Your task to perform on an android device: make emails show in primary in the gmail app Image 0: 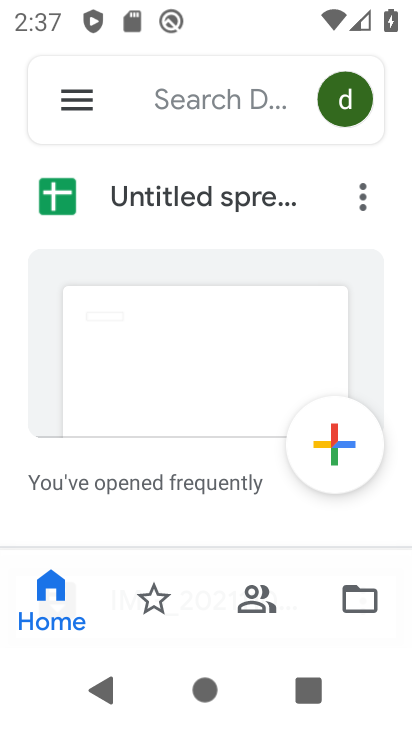
Step 0: press home button
Your task to perform on an android device: make emails show in primary in the gmail app Image 1: 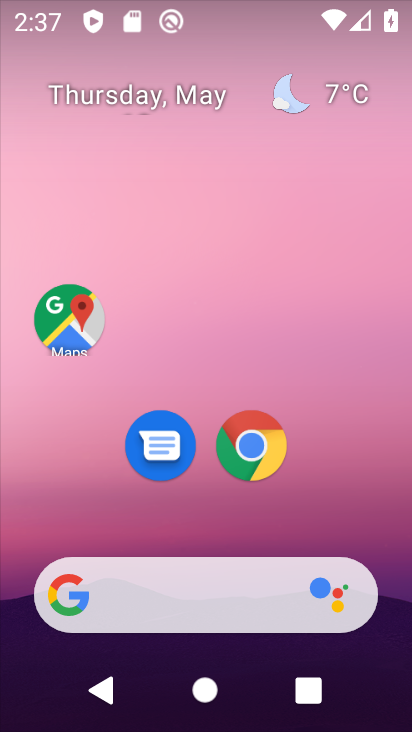
Step 1: drag from (348, 520) to (391, 12)
Your task to perform on an android device: make emails show in primary in the gmail app Image 2: 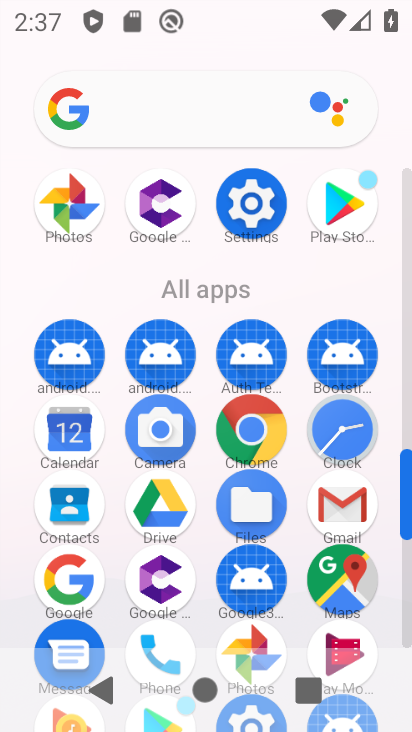
Step 2: click (342, 509)
Your task to perform on an android device: make emails show in primary in the gmail app Image 3: 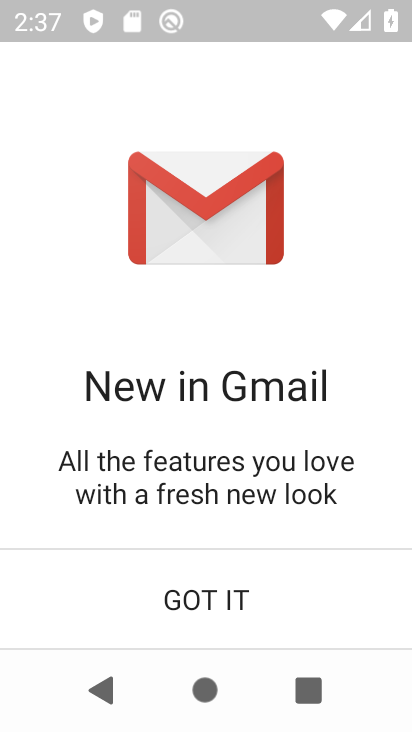
Step 3: click (206, 601)
Your task to perform on an android device: make emails show in primary in the gmail app Image 4: 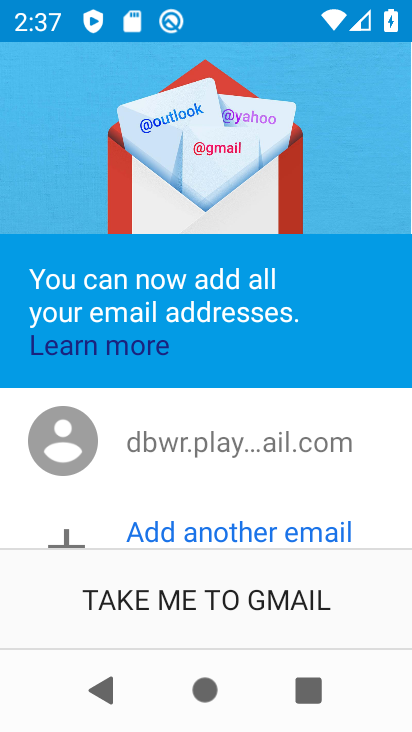
Step 4: click (206, 601)
Your task to perform on an android device: make emails show in primary in the gmail app Image 5: 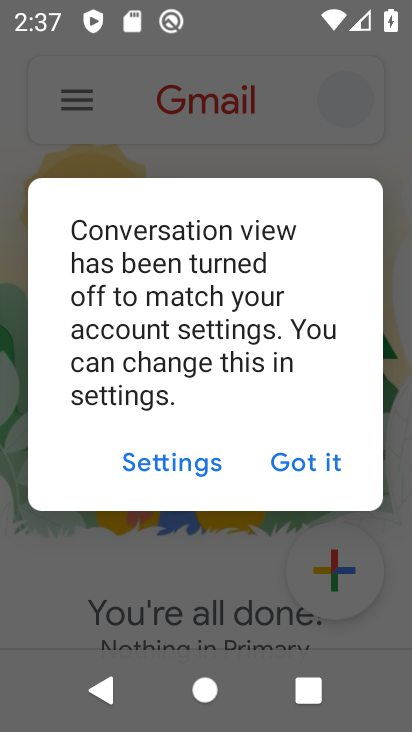
Step 5: click (295, 477)
Your task to perform on an android device: make emails show in primary in the gmail app Image 6: 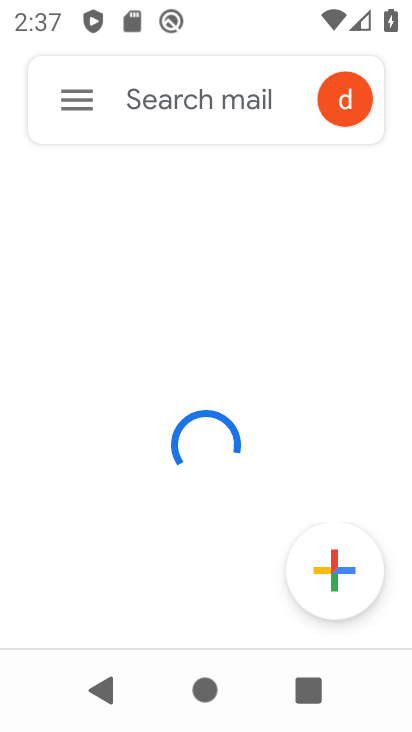
Step 6: click (81, 107)
Your task to perform on an android device: make emails show in primary in the gmail app Image 7: 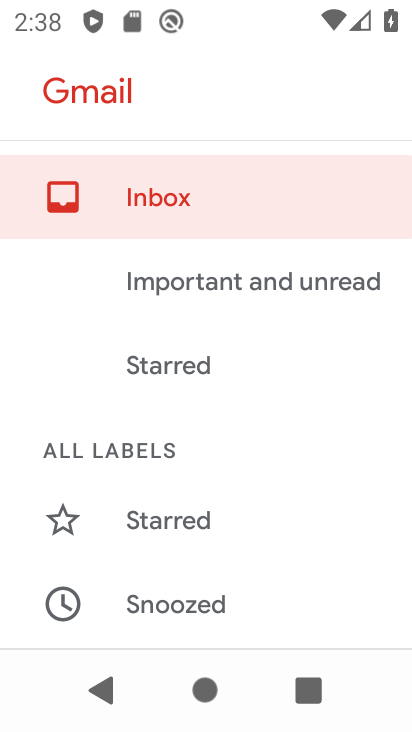
Step 7: drag from (258, 503) to (266, 104)
Your task to perform on an android device: make emails show in primary in the gmail app Image 8: 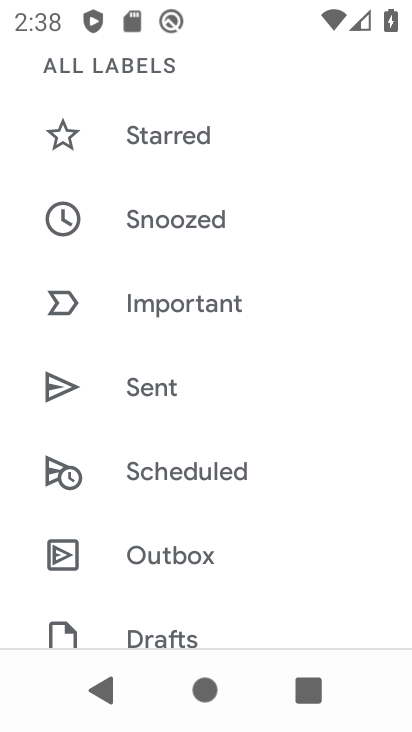
Step 8: drag from (293, 495) to (255, 114)
Your task to perform on an android device: make emails show in primary in the gmail app Image 9: 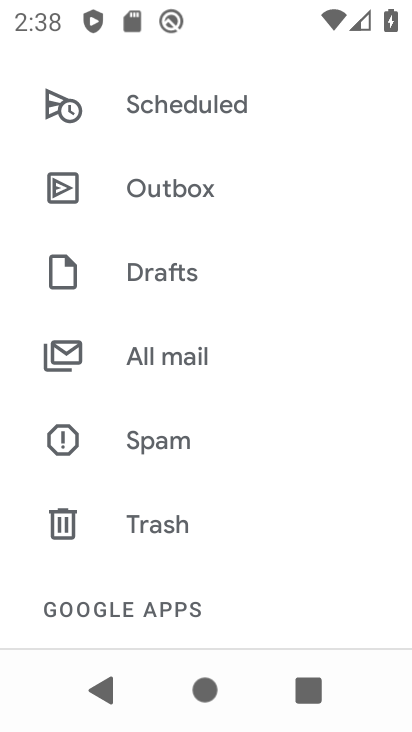
Step 9: drag from (243, 521) to (262, 155)
Your task to perform on an android device: make emails show in primary in the gmail app Image 10: 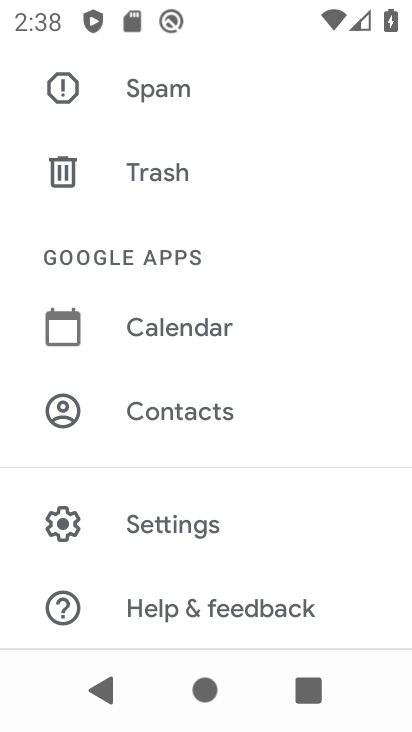
Step 10: drag from (277, 516) to (280, 189)
Your task to perform on an android device: make emails show in primary in the gmail app Image 11: 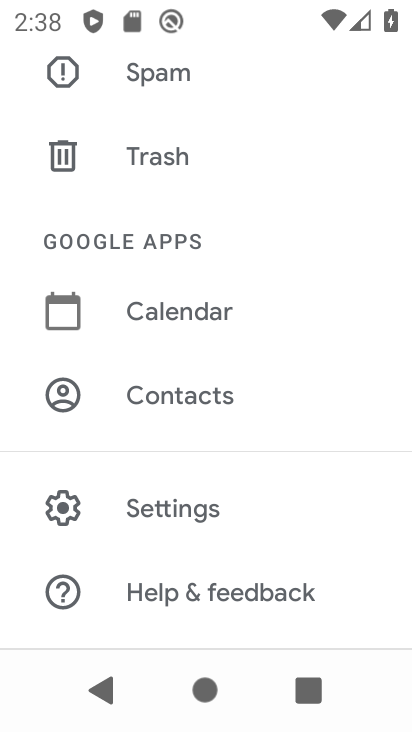
Step 11: click (172, 518)
Your task to perform on an android device: make emails show in primary in the gmail app Image 12: 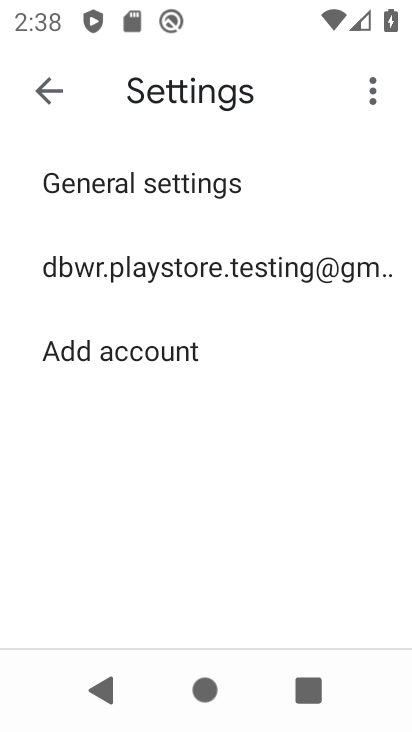
Step 12: click (117, 276)
Your task to perform on an android device: make emails show in primary in the gmail app Image 13: 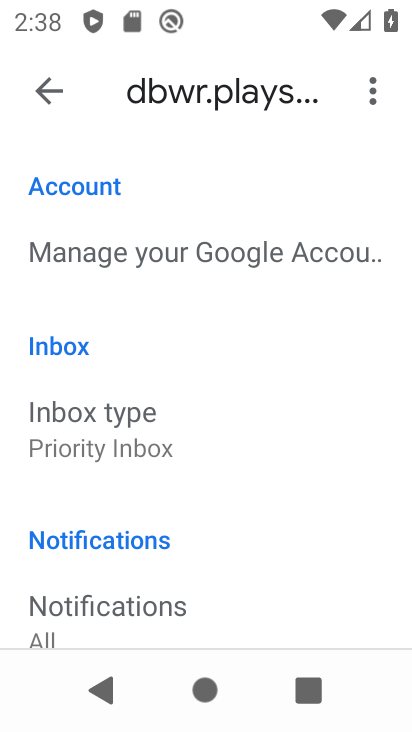
Step 13: task complete